Your task to perform on an android device: What's the weather going to be this weekend? Image 0: 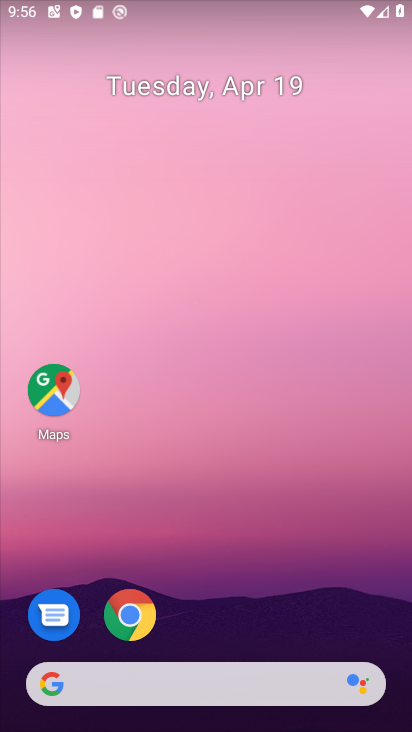
Step 0: drag from (207, 635) to (231, 31)
Your task to perform on an android device: What's the weather going to be this weekend? Image 1: 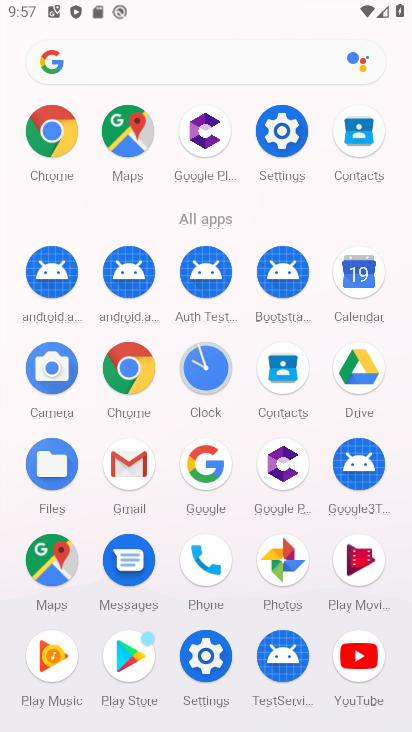
Step 1: click (125, 369)
Your task to perform on an android device: What's the weather going to be this weekend? Image 2: 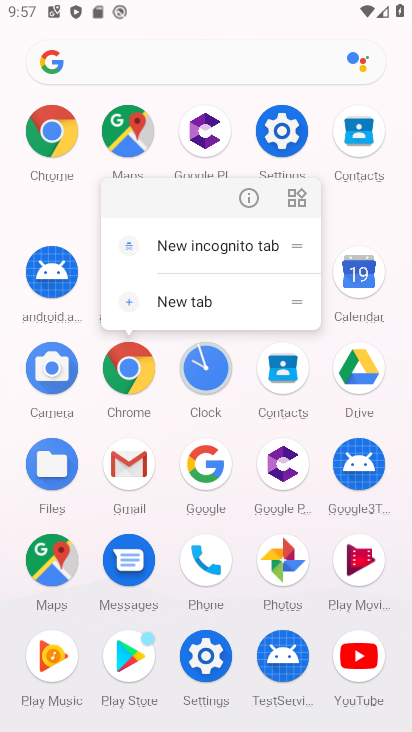
Step 2: click (230, 195)
Your task to perform on an android device: What's the weather going to be this weekend? Image 3: 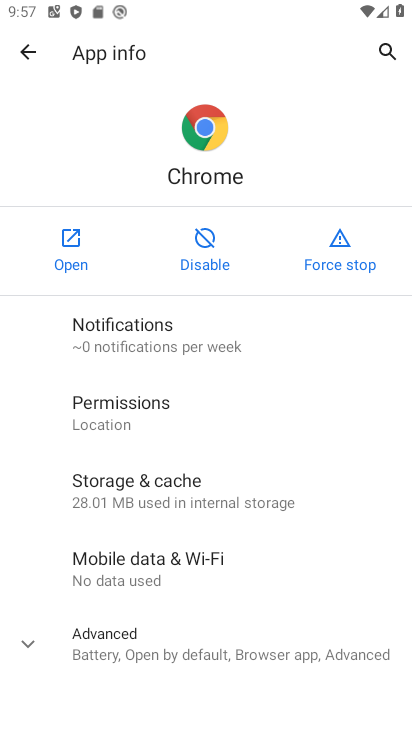
Step 3: click (67, 250)
Your task to perform on an android device: What's the weather going to be this weekend? Image 4: 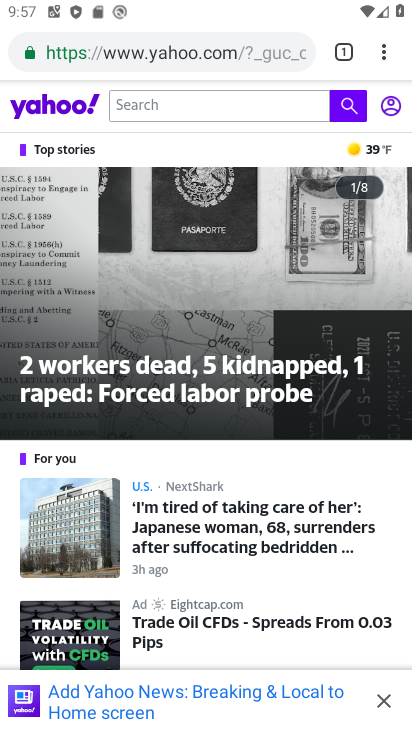
Step 4: click (256, 68)
Your task to perform on an android device: What's the weather going to be this weekend? Image 5: 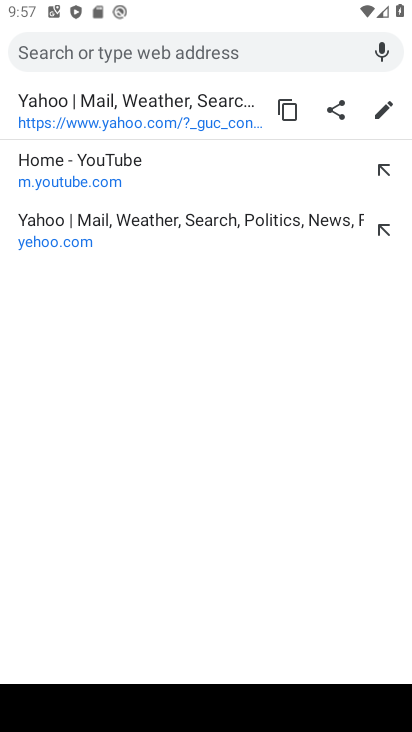
Step 5: click (213, 44)
Your task to perform on an android device: What's the weather going to be this weekend? Image 6: 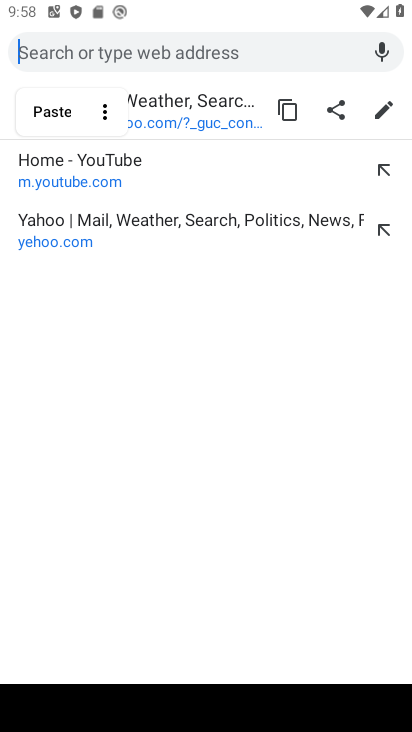
Step 6: type "weather going weekend"
Your task to perform on an android device: What's the weather going to be this weekend? Image 7: 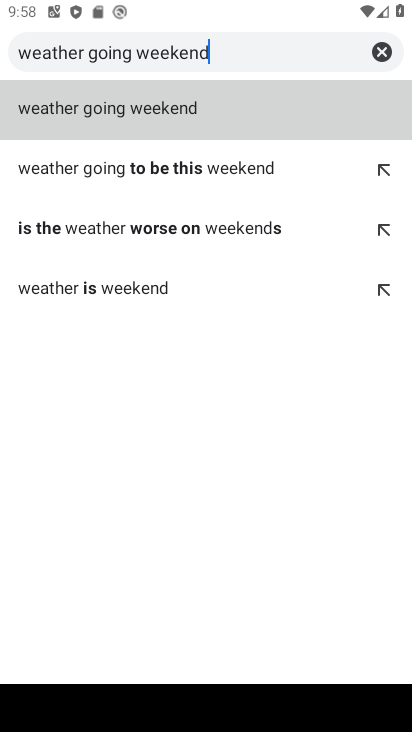
Step 7: click (176, 110)
Your task to perform on an android device: What's the weather going to be this weekend? Image 8: 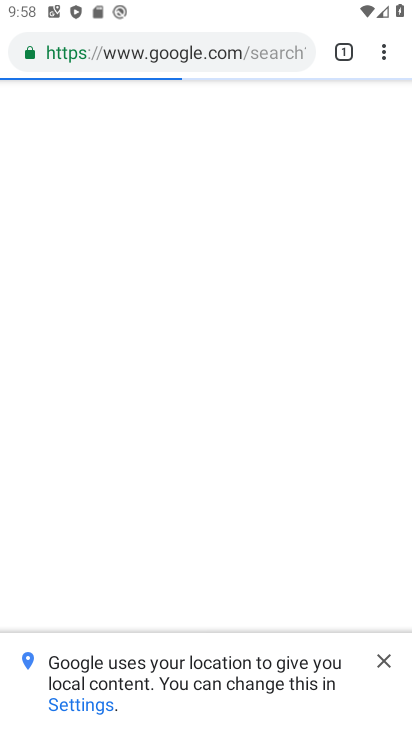
Step 8: drag from (241, 499) to (238, 228)
Your task to perform on an android device: What's the weather going to be this weekend? Image 9: 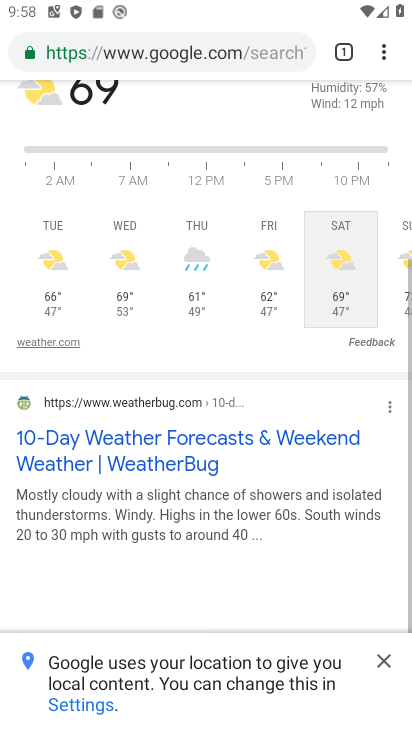
Step 9: click (316, 252)
Your task to perform on an android device: What's the weather going to be this weekend? Image 10: 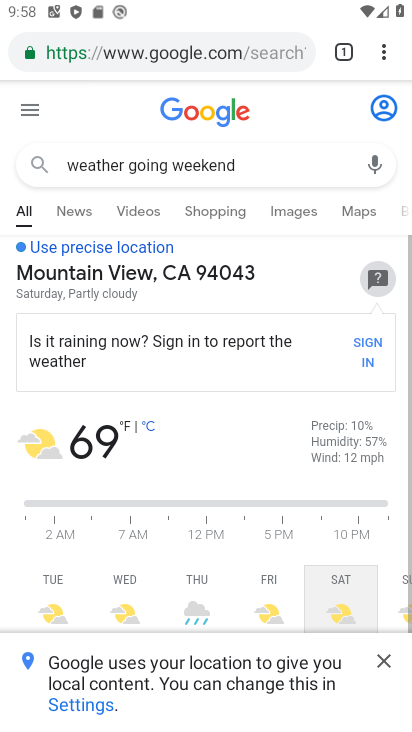
Step 10: task complete